Your task to perform on an android device: Open network settings Image 0: 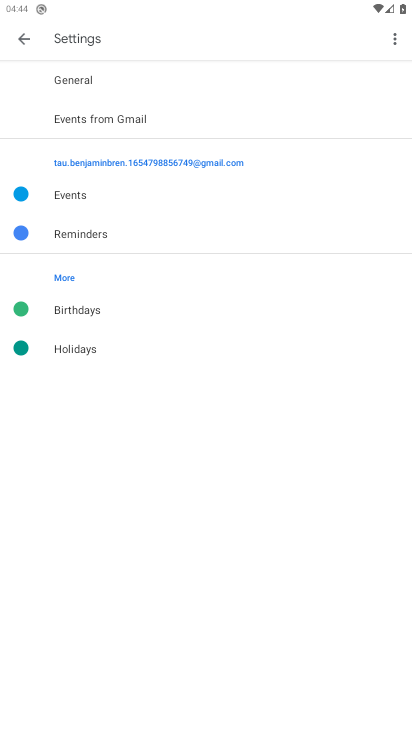
Step 0: press home button
Your task to perform on an android device: Open network settings Image 1: 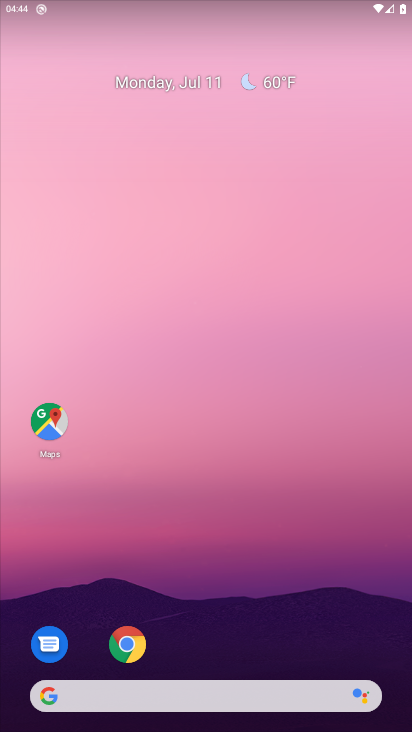
Step 1: click (230, 196)
Your task to perform on an android device: Open network settings Image 2: 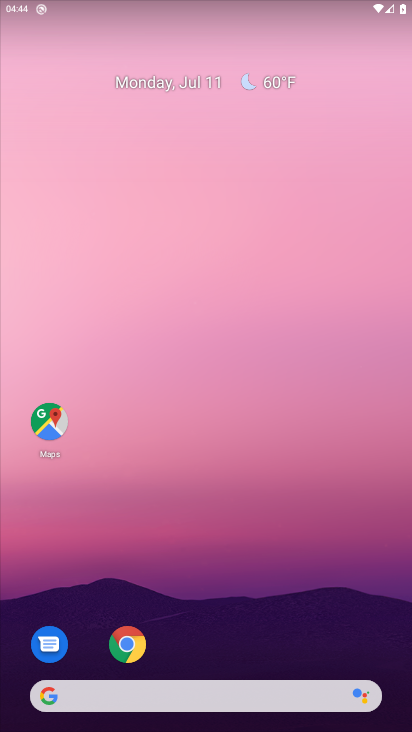
Step 2: drag from (200, 682) to (220, 203)
Your task to perform on an android device: Open network settings Image 3: 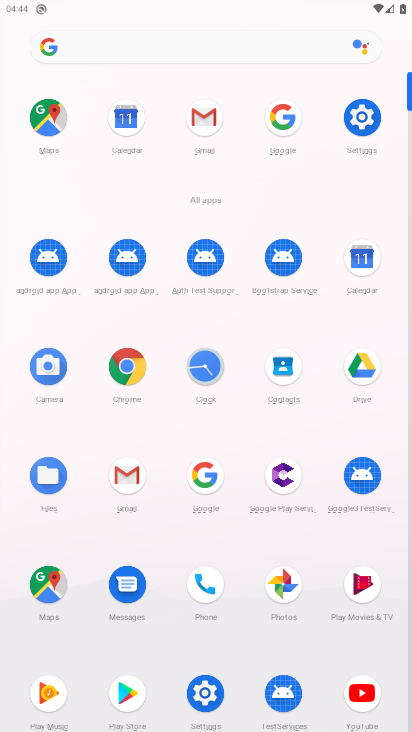
Step 3: click (359, 123)
Your task to perform on an android device: Open network settings Image 4: 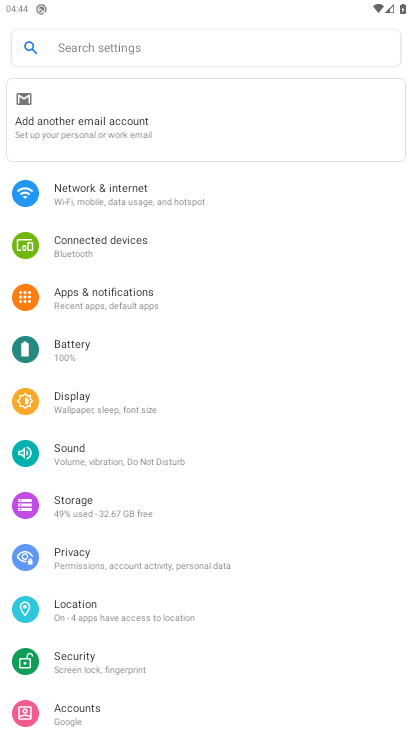
Step 4: click (124, 186)
Your task to perform on an android device: Open network settings Image 5: 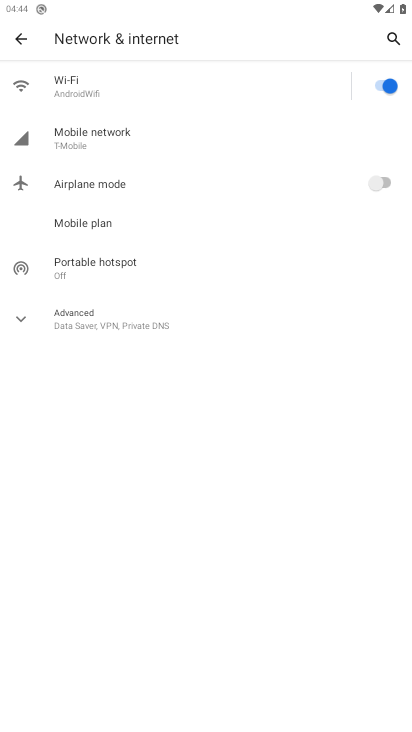
Step 5: click (110, 322)
Your task to perform on an android device: Open network settings Image 6: 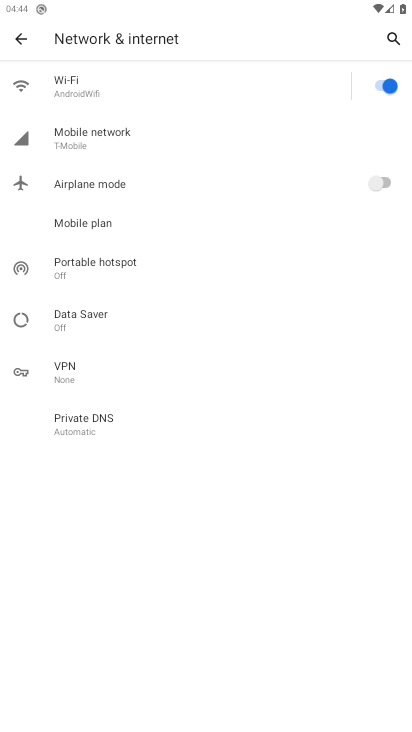
Step 6: task complete